Your task to perform on an android device: turn on location history Image 0: 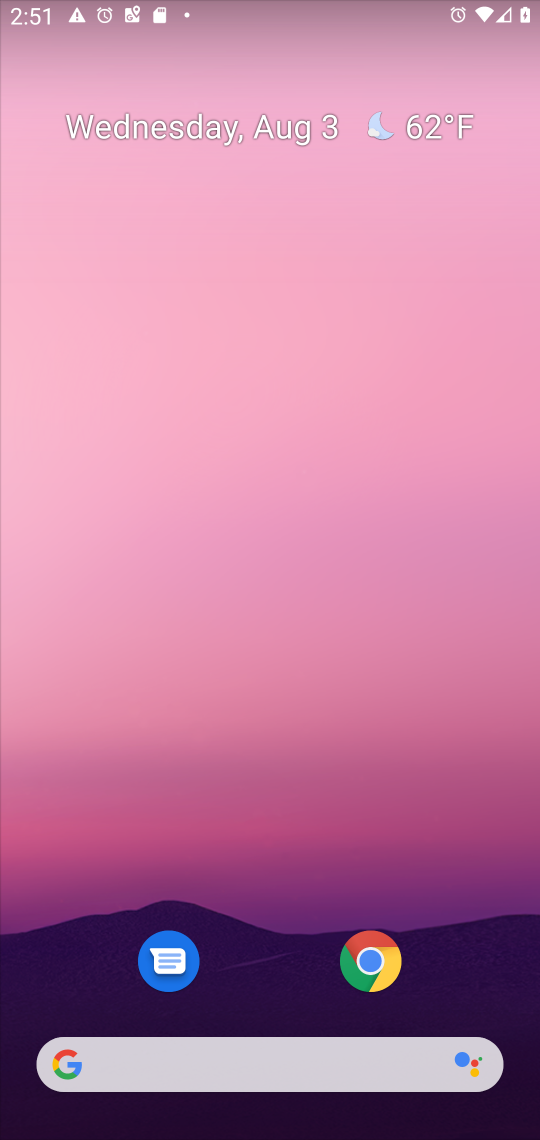
Step 0: drag from (252, 679) to (243, 31)
Your task to perform on an android device: turn on location history Image 1: 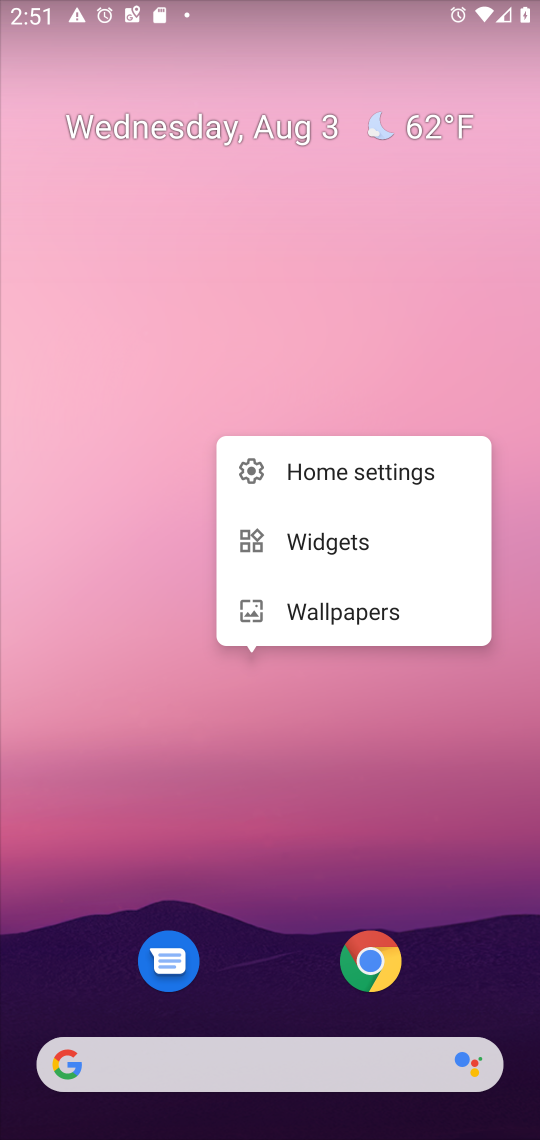
Step 1: drag from (272, 829) to (255, 48)
Your task to perform on an android device: turn on location history Image 2: 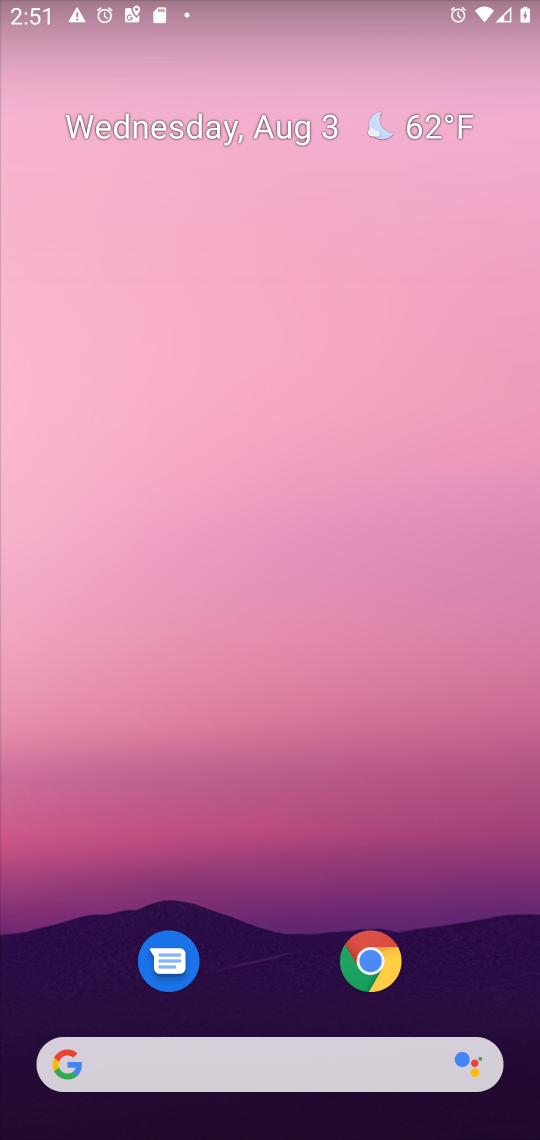
Step 2: drag from (290, 971) to (286, 63)
Your task to perform on an android device: turn on location history Image 3: 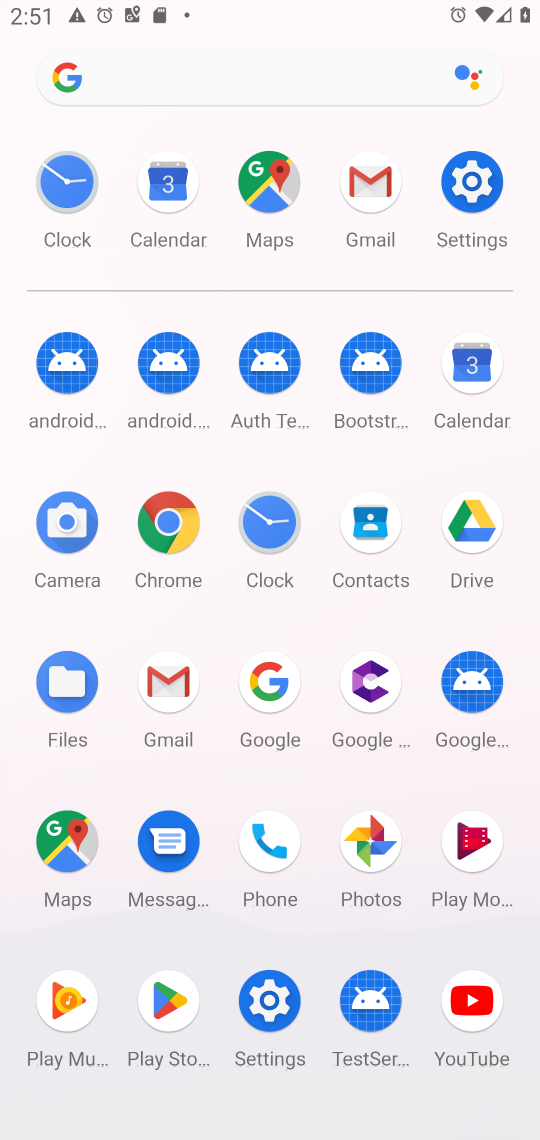
Step 3: click (266, 178)
Your task to perform on an android device: turn on location history Image 4: 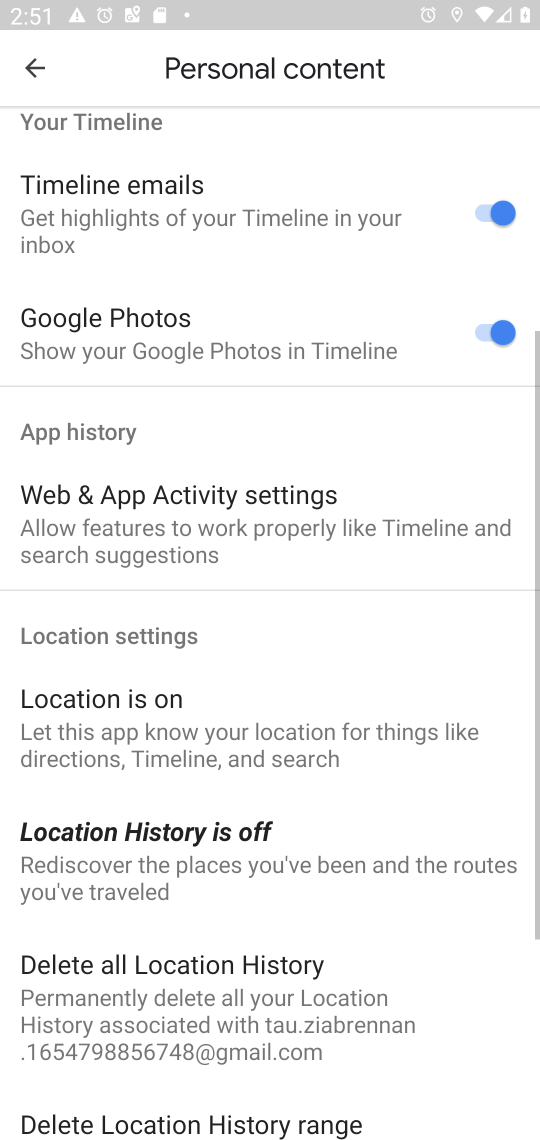
Step 4: click (54, 844)
Your task to perform on an android device: turn on location history Image 5: 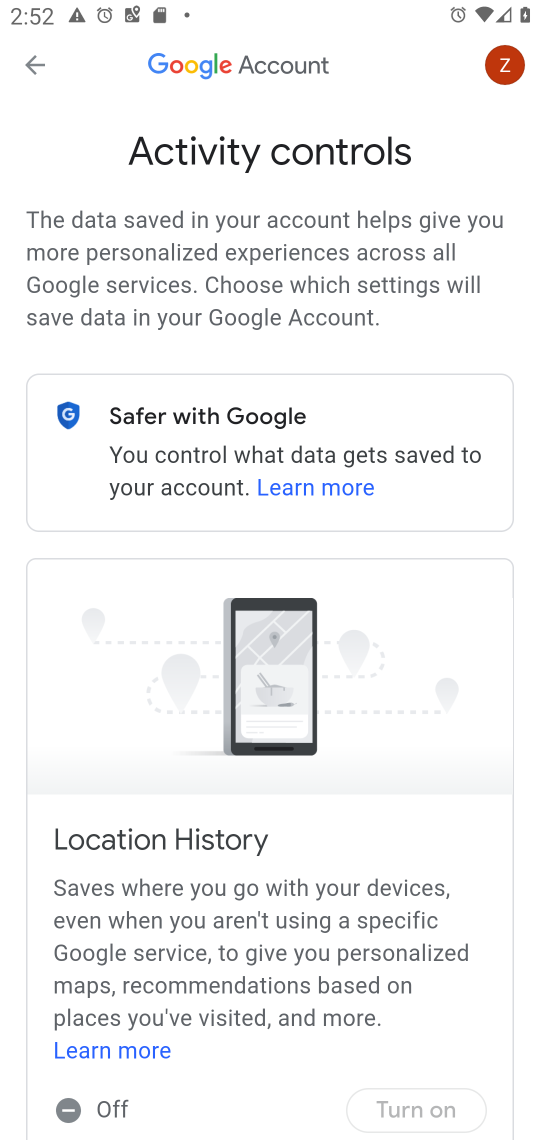
Step 5: click (393, 1097)
Your task to perform on an android device: turn on location history Image 6: 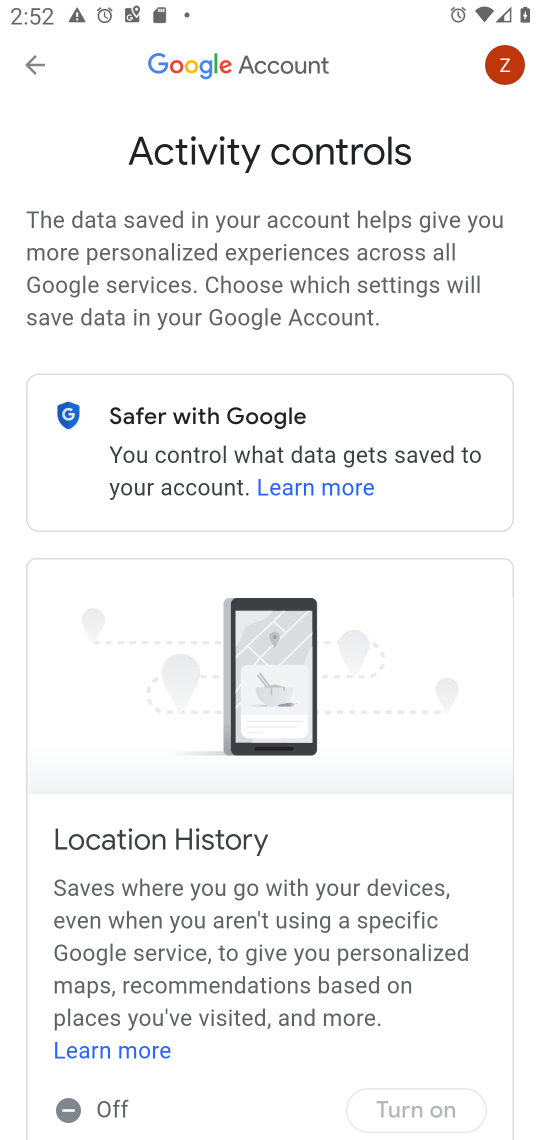
Step 6: task complete